Your task to perform on an android device: check data usage Image 0: 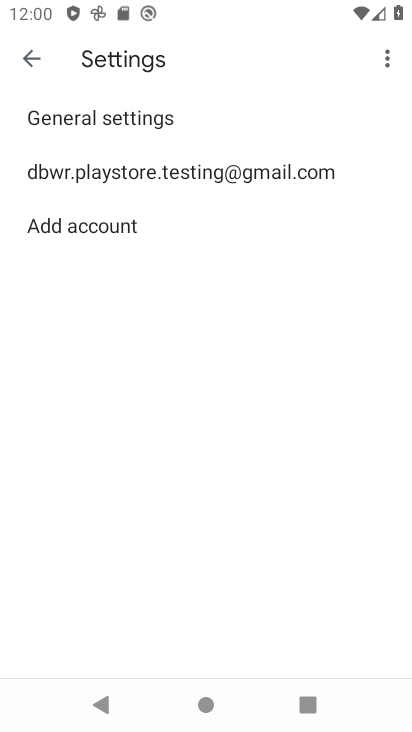
Step 0: press home button
Your task to perform on an android device: check data usage Image 1: 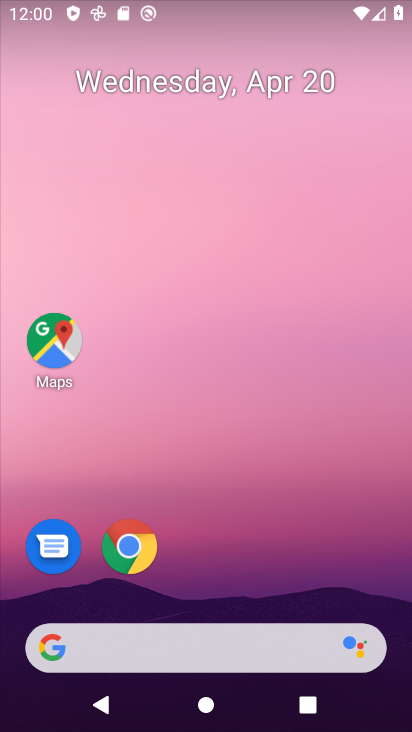
Step 1: drag from (255, 671) to (212, 15)
Your task to perform on an android device: check data usage Image 2: 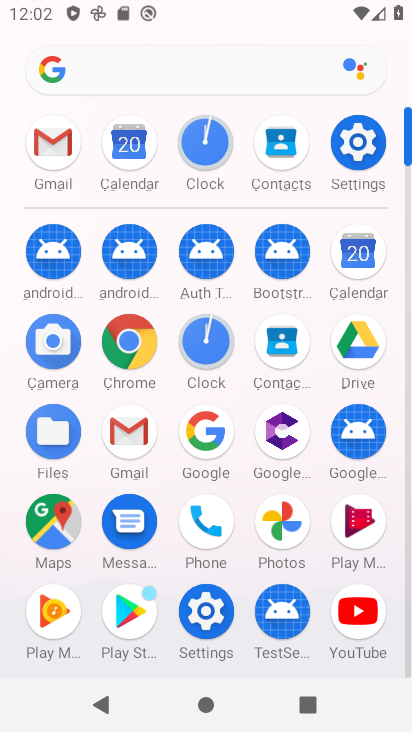
Step 2: click (344, 145)
Your task to perform on an android device: check data usage Image 3: 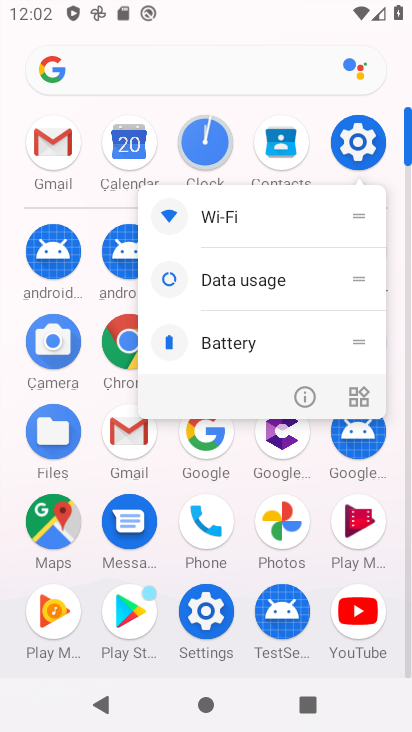
Step 3: click (246, 297)
Your task to perform on an android device: check data usage Image 4: 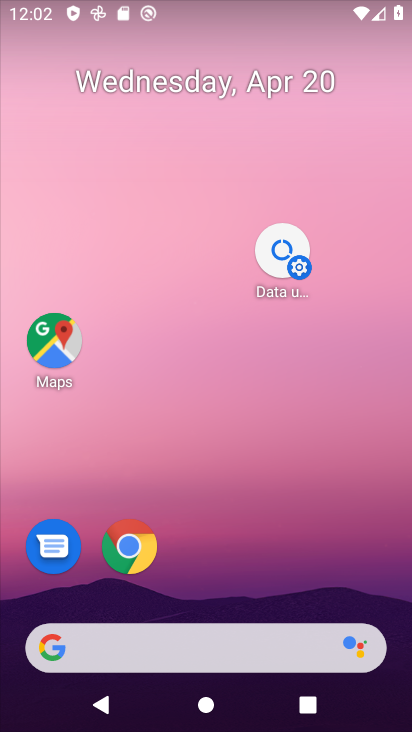
Step 4: click (285, 264)
Your task to perform on an android device: check data usage Image 5: 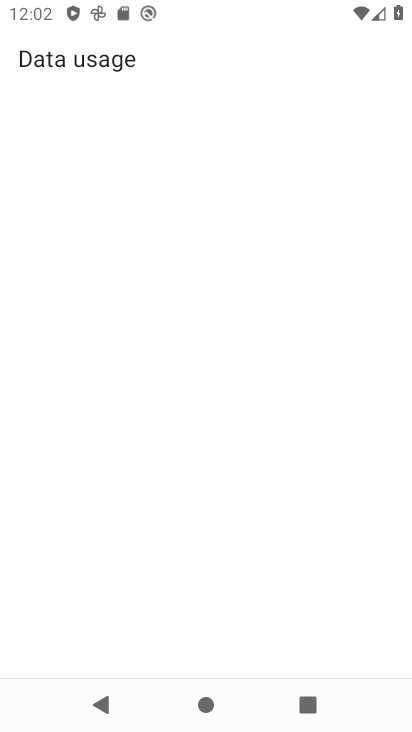
Step 5: click (285, 264)
Your task to perform on an android device: check data usage Image 6: 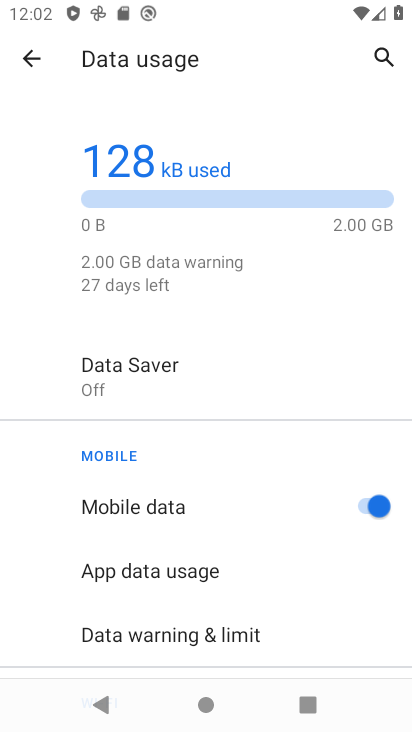
Step 6: task complete